Your task to perform on an android device: Open notification settings Image 0: 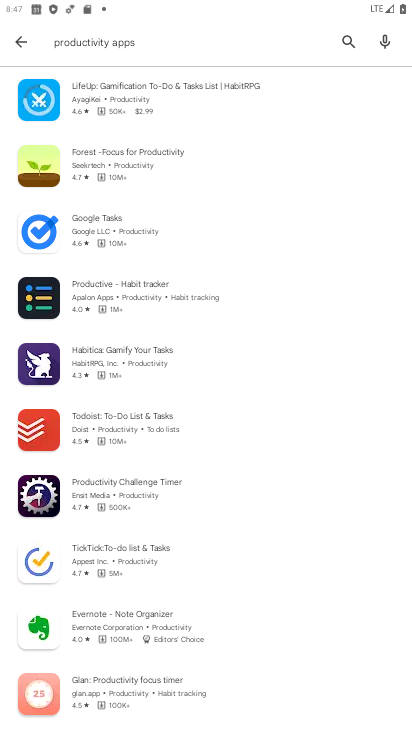
Step 0: press home button
Your task to perform on an android device: Open notification settings Image 1: 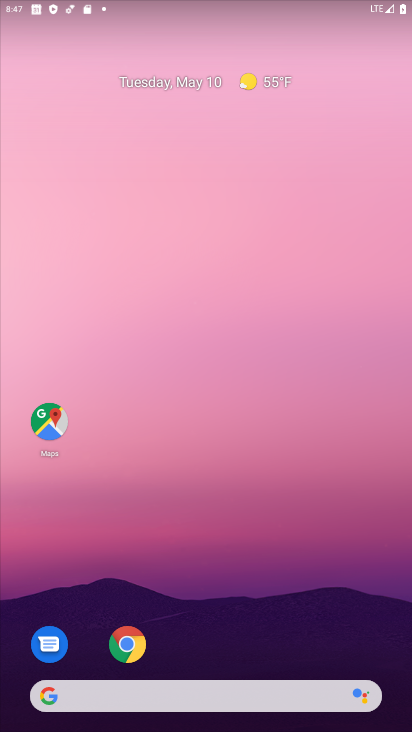
Step 1: drag from (261, 489) to (222, 237)
Your task to perform on an android device: Open notification settings Image 2: 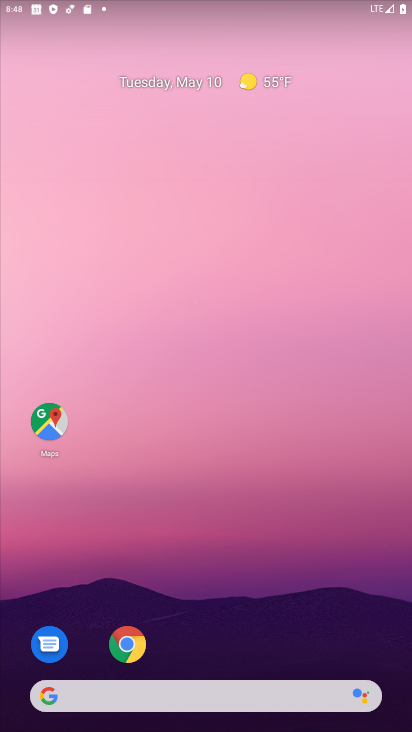
Step 2: drag from (180, 682) to (179, 317)
Your task to perform on an android device: Open notification settings Image 3: 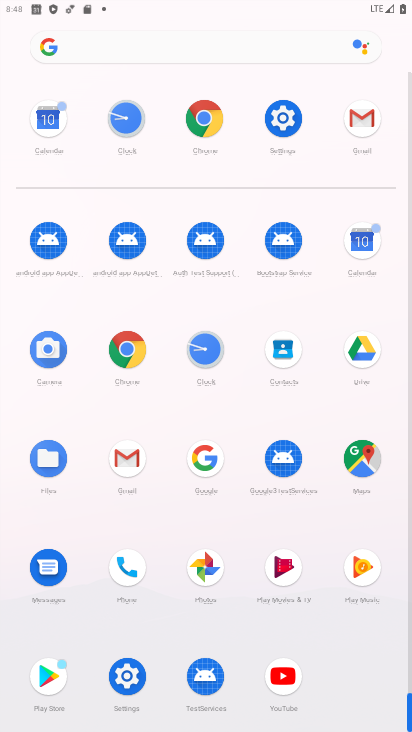
Step 3: click (280, 134)
Your task to perform on an android device: Open notification settings Image 4: 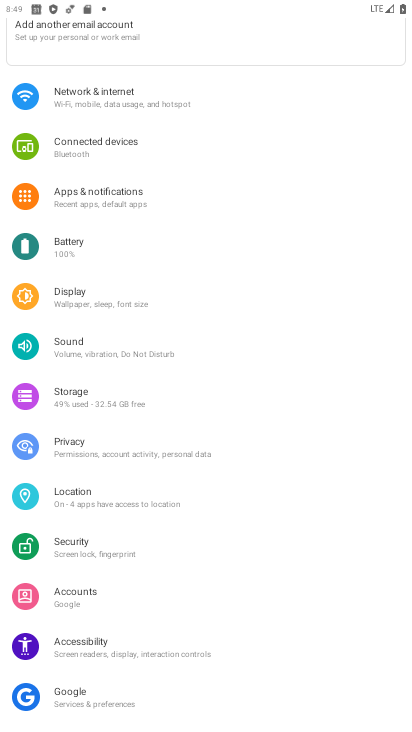
Step 4: click (148, 203)
Your task to perform on an android device: Open notification settings Image 5: 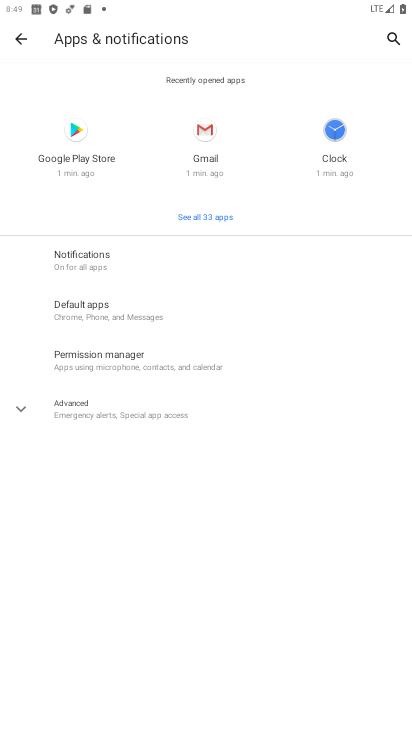
Step 5: click (151, 265)
Your task to perform on an android device: Open notification settings Image 6: 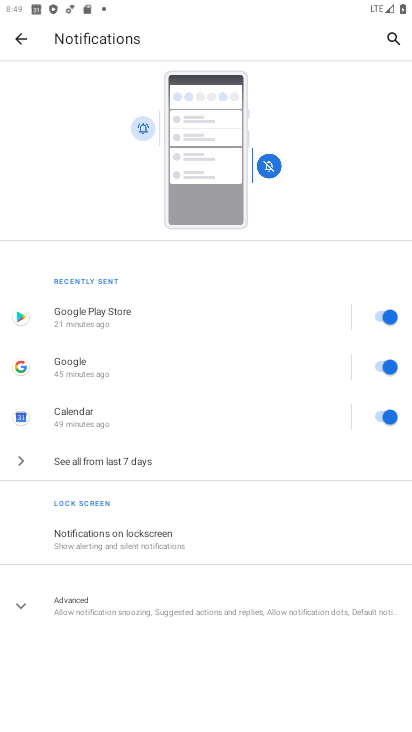
Step 6: task complete